Your task to perform on an android device: change your default location settings in chrome Image 0: 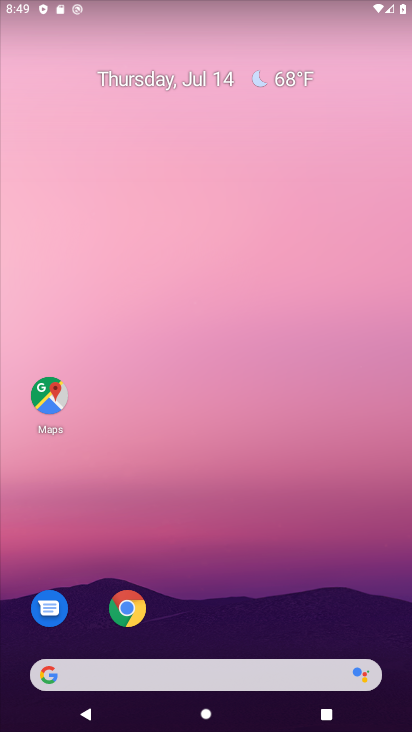
Step 0: click (139, 608)
Your task to perform on an android device: change your default location settings in chrome Image 1: 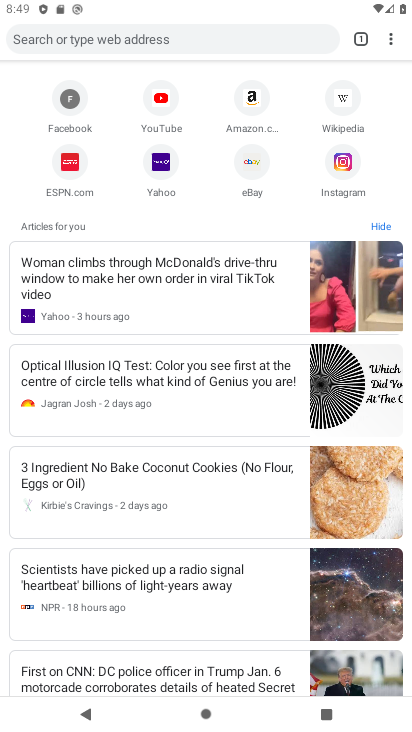
Step 1: drag from (392, 36) to (255, 330)
Your task to perform on an android device: change your default location settings in chrome Image 2: 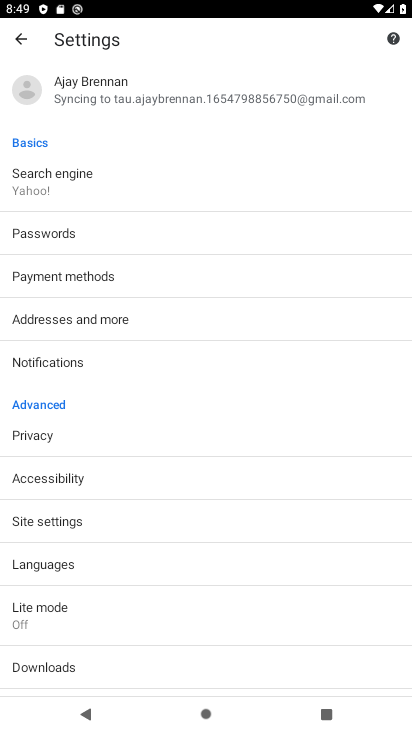
Step 2: click (65, 521)
Your task to perform on an android device: change your default location settings in chrome Image 3: 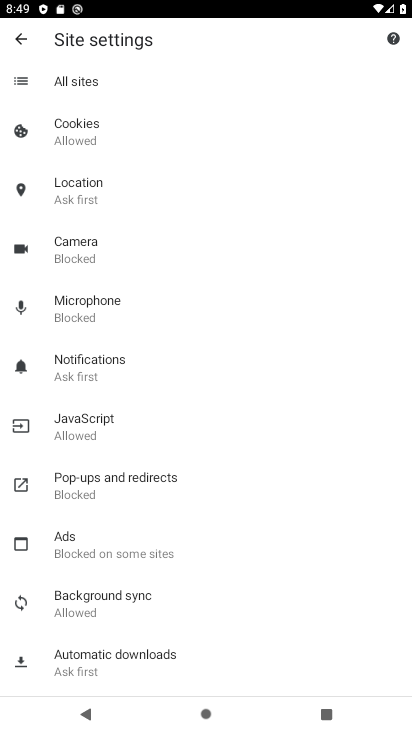
Step 3: click (74, 190)
Your task to perform on an android device: change your default location settings in chrome Image 4: 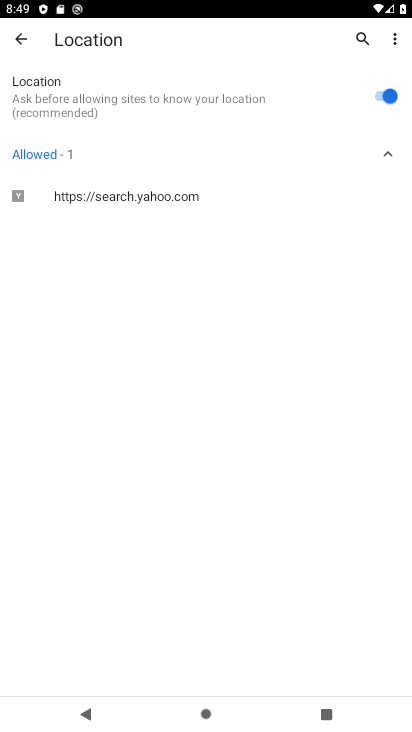
Step 4: click (380, 98)
Your task to perform on an android device: change your default location settings in chrome Image 5: 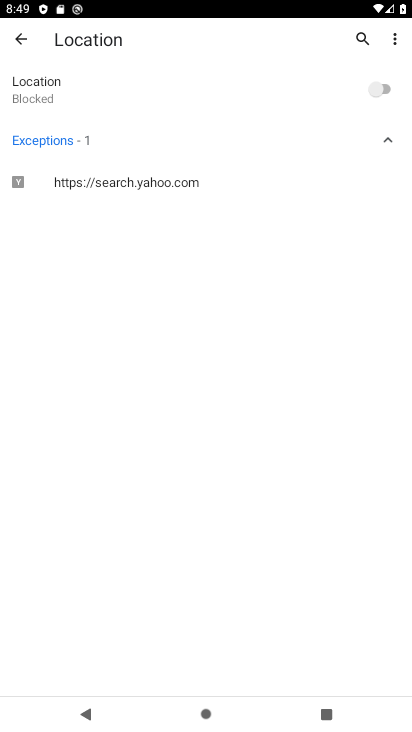
Step 5: task complete